Your task to perform on an android device: Go to Yahoo.com Image 0: 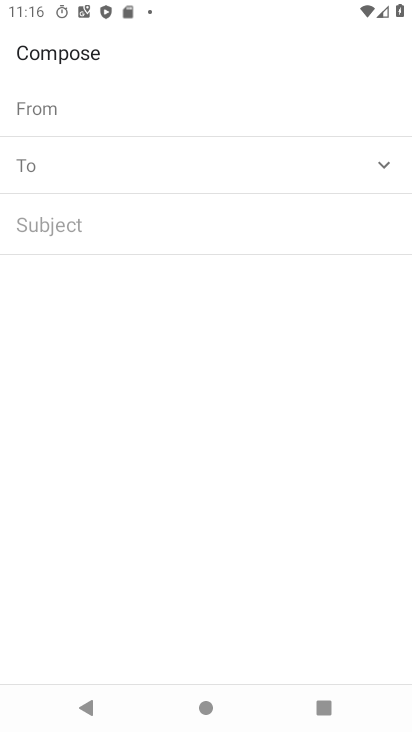
Step 0: click (147, 583)
Your task to perform on an android device: Go to Yahoo.com Image 1: 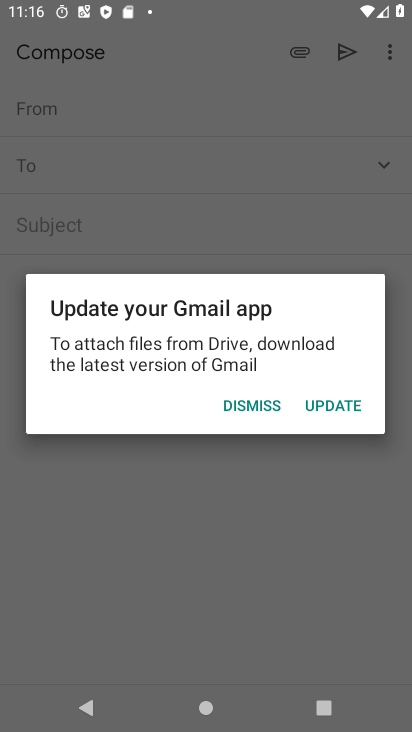
Step 1: click (262, 410)
Your task to perform on an android device: Go to Yahoo.com Image 2: 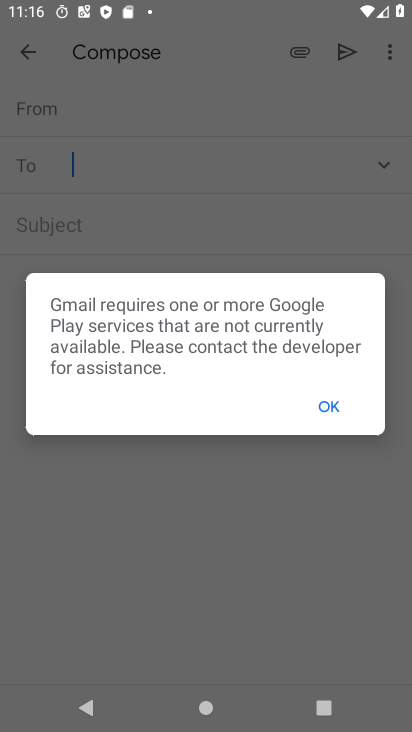
Step 2: press home button
Your task to perform on an android device: Go to Yahoo.com Image 3: 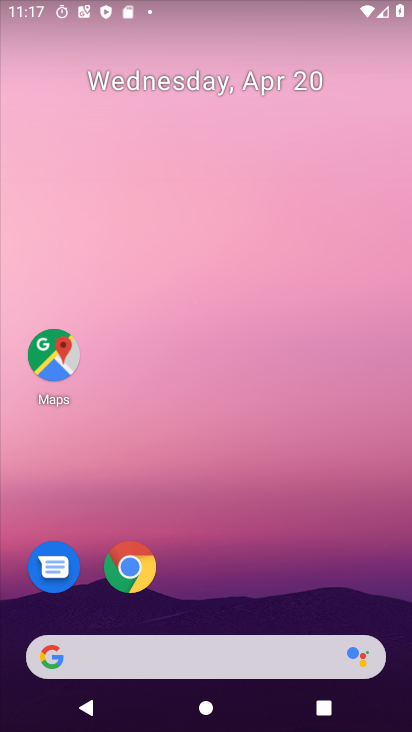
Step 3: click (144, 566)
Your task to perform on an android device: Go to Yahoo.com Image 4: 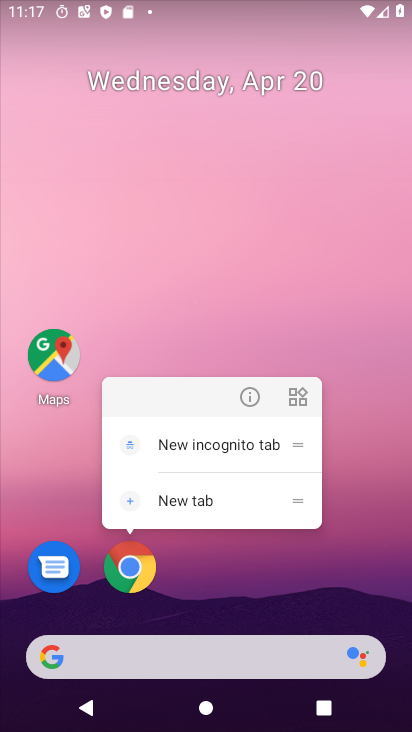
Step 4: click (245, 401)
Your task to perform on an android device: Go to Yahoo.com Image 5: 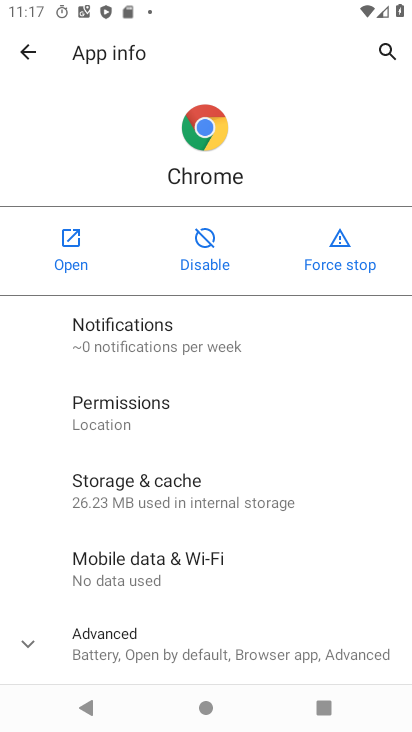
Step 5: click (89, 272)
Your task to perform on an android device: Go to Yahoo.com Image 6: 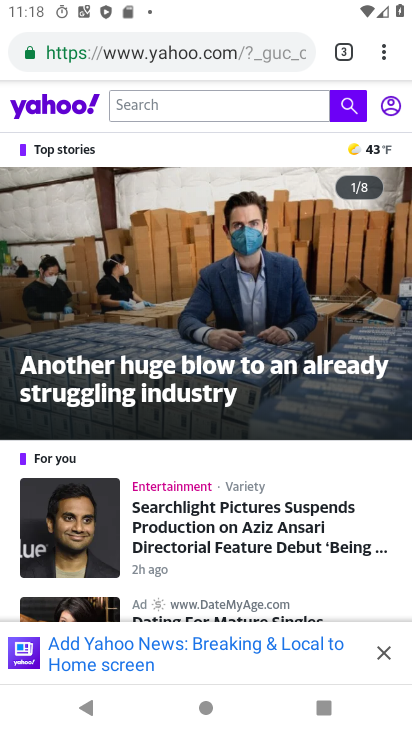
Step 6: task complete